Your task to perform on an android device: turn pop-ups on in chrome Image 0: 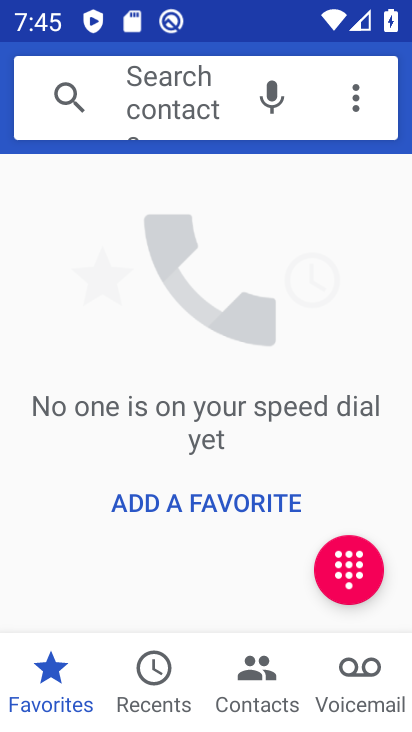
Step 0: drag from (374, 518) to (354, 135)
Your task to perform on an android device: turn pop-ups on in chrome Image 1: 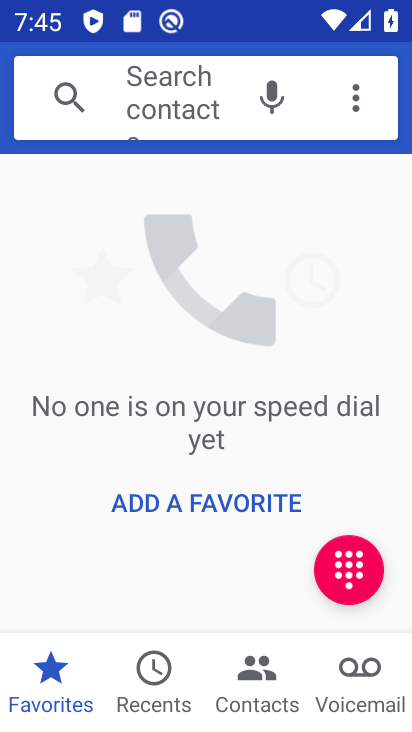
Step 1: press home button
Your task to perform on an android device: turn pop-ups on in chrome Image 2: 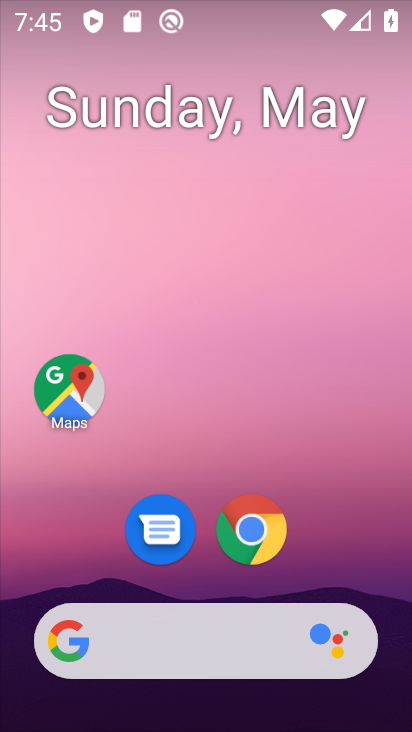
Step 2: drag from (360, 574) to (319, 109)
Your task to perform on an android device: turn pop-ups on in chrome Image 3: 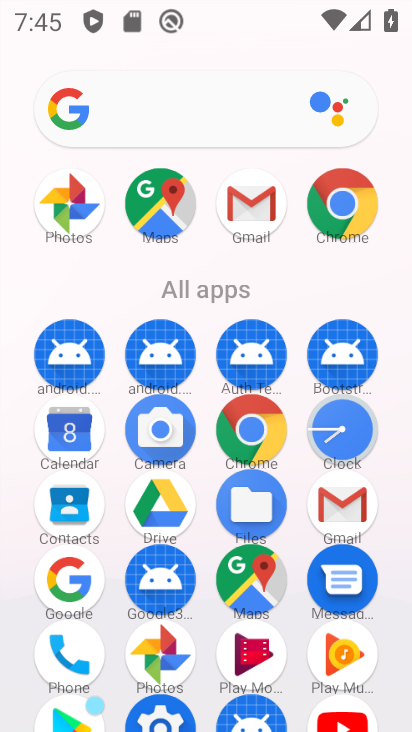
Step 3: click (268, 428)
Your task to perform on an android device: turn pop-ups on in chrome Image 4: 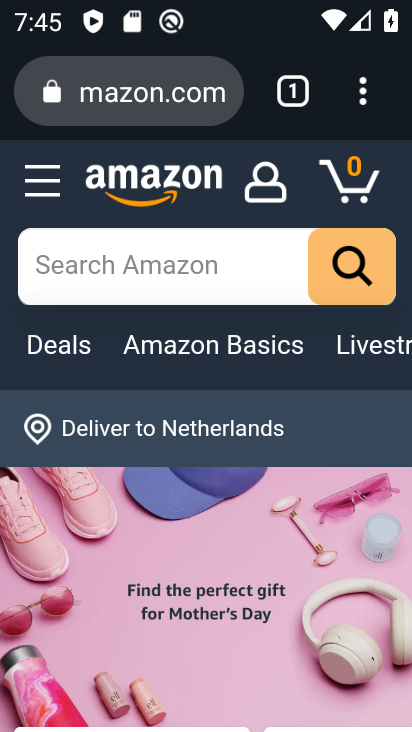
Step 4: drag from (362, 101) to (245, 573)
Your task to perform on an android device: turn pop-ups on in chrome Image 5: 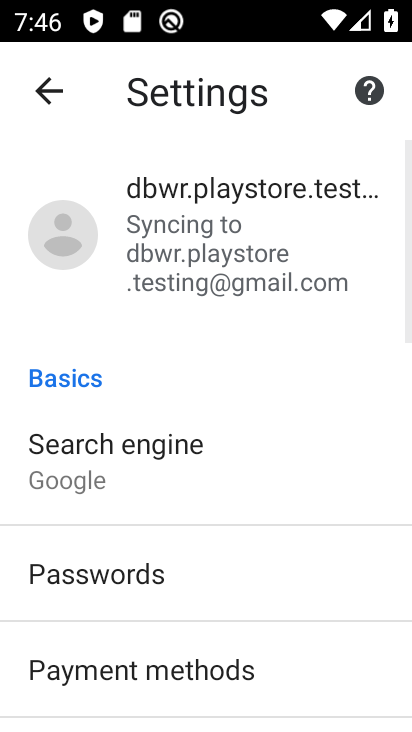
Step 5: drag from (327, 683) to (303, 259)
Your task to perform on an android device: turn pop-ups on in chrome Image 6: 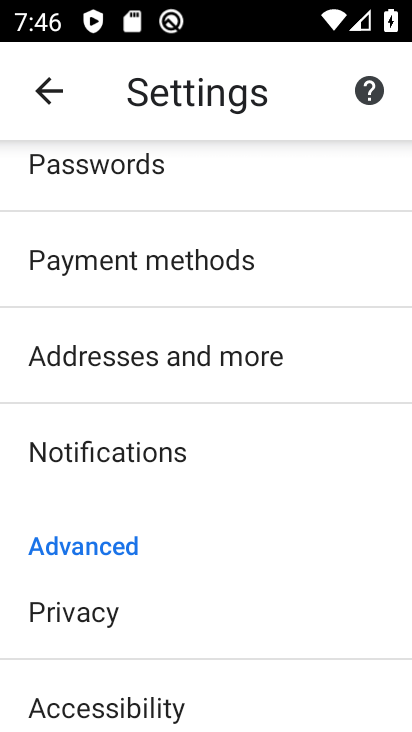
Step 6: drag from (249, 645) to (269, 205)
Your task to perform on an android device: turn pop-ups on in chrome Image 7: 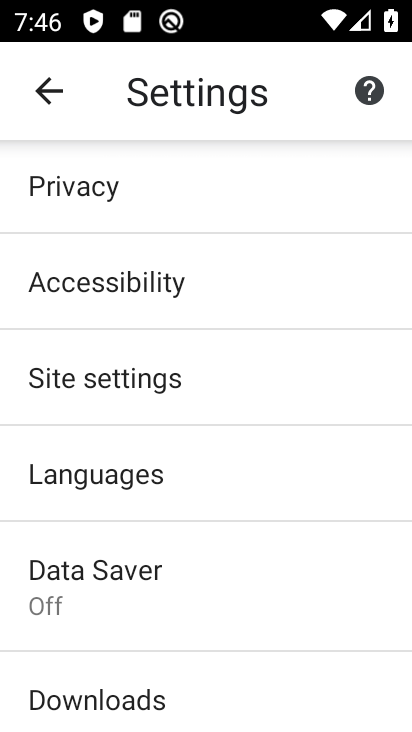
Step 7: click (187, 371)
Your task to perform on an android device: turn pop-ups on in chrome Image 8: 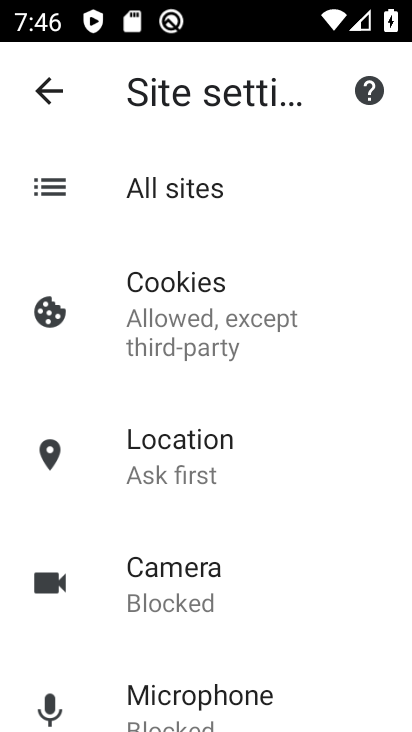
Step 8: drag from (255, 608) to (264, 337)
Your task to perform on an android device: turn pop-ups on in chrome Image 9: 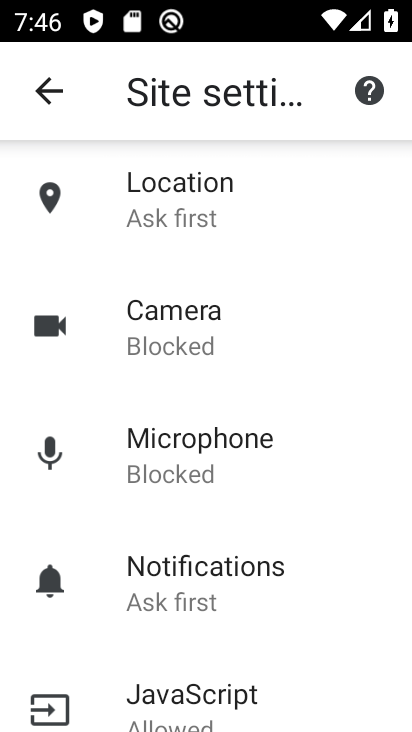
Step 9: drag from (276, 541) to (279, 239)
Your task to perform on an android device: turn pop-ups on in chrome Image 10: 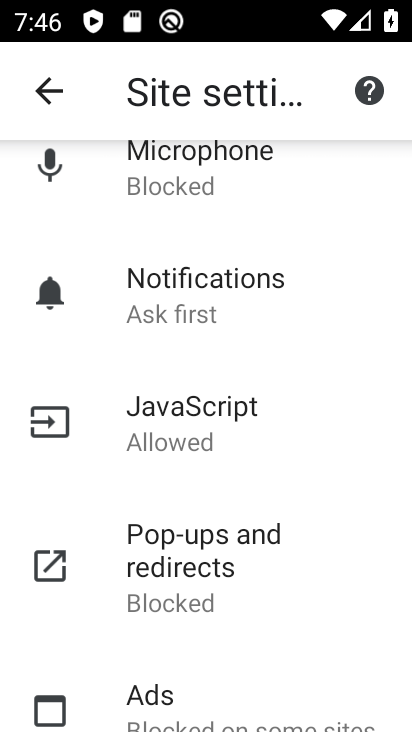
Step 10: click (255, 549)
Your task to perform on an android device: turn pop-ups on in chrome Image 11: 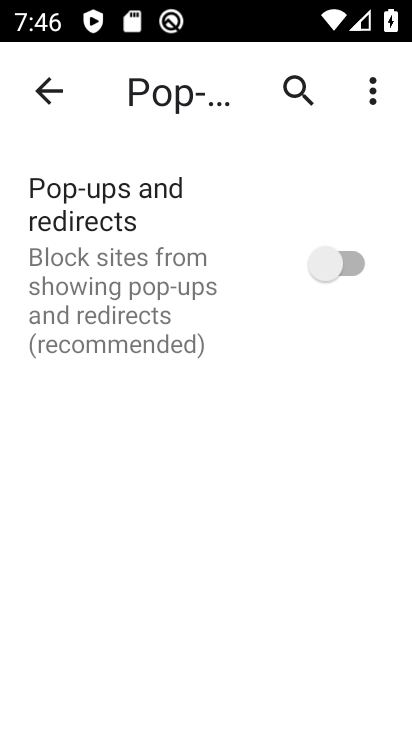
Step 11: click (350, 254)
Your task to perform on an android device: turn pop-ups on in chrome Image 12: 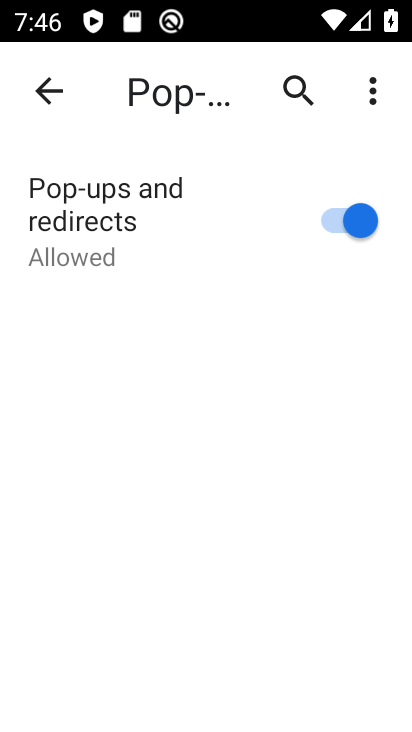
Step 12: task complete